Your task to perform on an android device: Open the phone app and click the voicemail tab. Image 0: 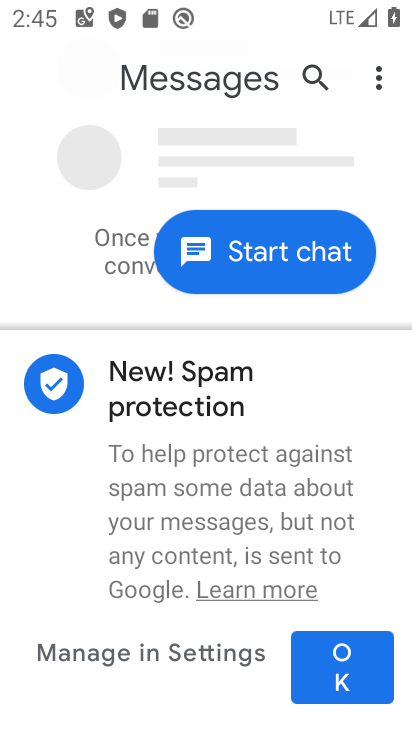
Step 0: press home button
Your task to perform on an android device: Open the phone app and click the voicemail tab. Image 1: 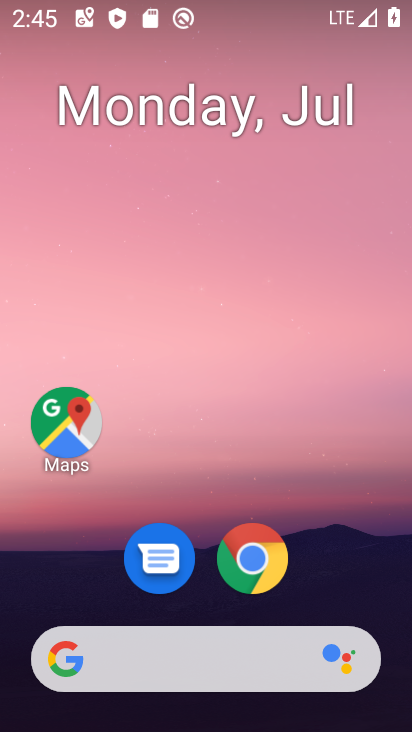
Step 1: drag from (357, 522) to (342, 157)
Your task to perform on an android device: Open the phone app and click the voicemail tab. Image 2: 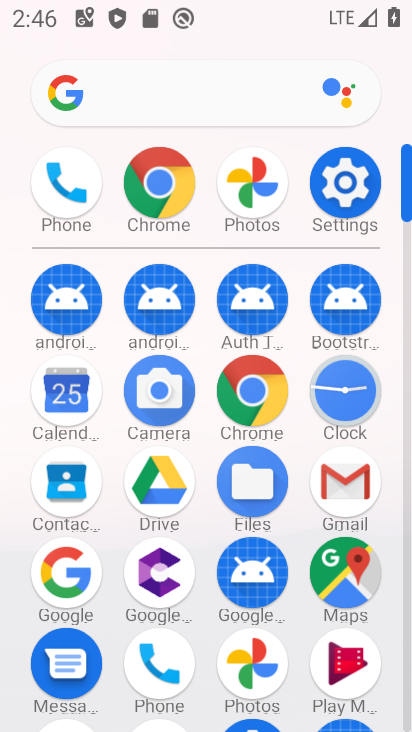
Step 2: click (164, 677)
Your task to perform on an android device: Open the phone app and click the voicemail tab. Image 3: 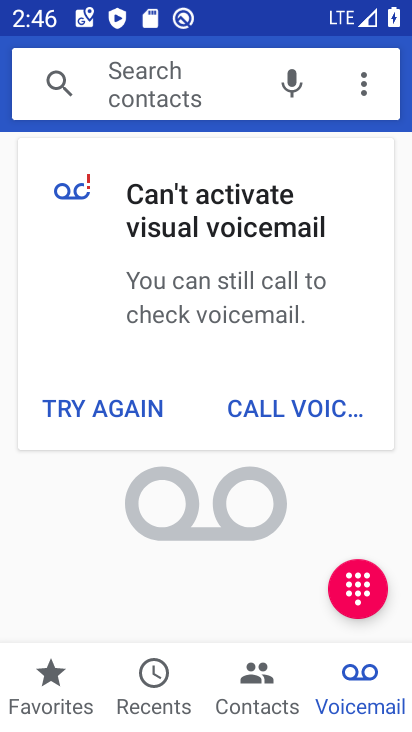
Step 3: task complete